Your task to perform on an android device: open wifi settings Image 0: 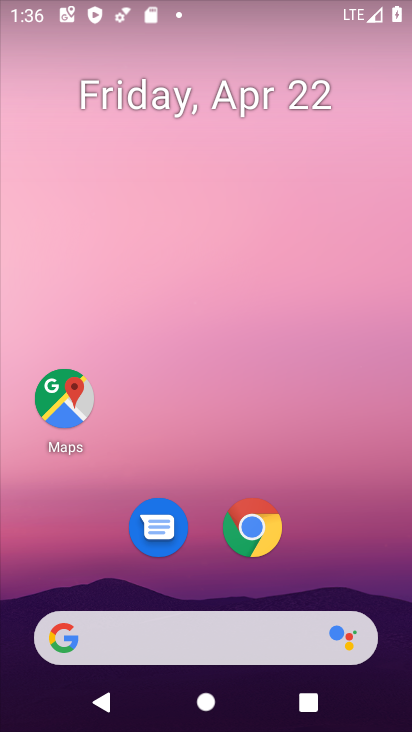
Step 0: drag from (318, 521) to (320, 78)
Your task to perform on an android device: open wifi settings Image 1: 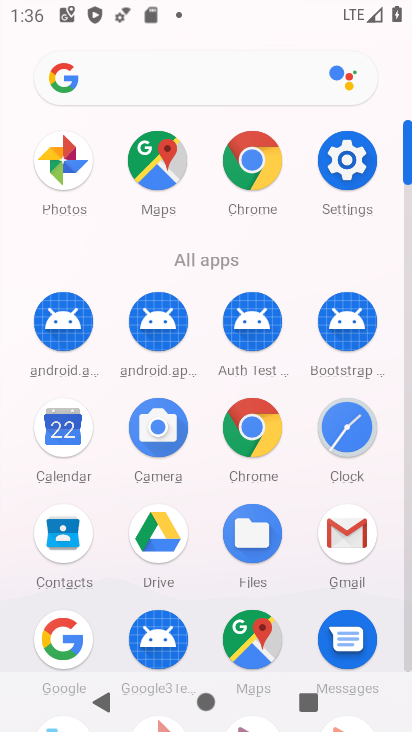
Step 1: click (345, 161)
Your task to perform on an android device: open wifi settings Image 2: 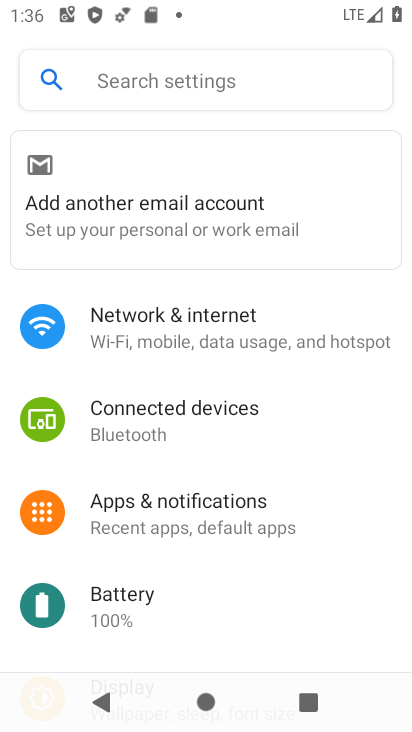
Step 2: click (218, 335)
Your task to perform on an android device: open wifi settings Image 3: 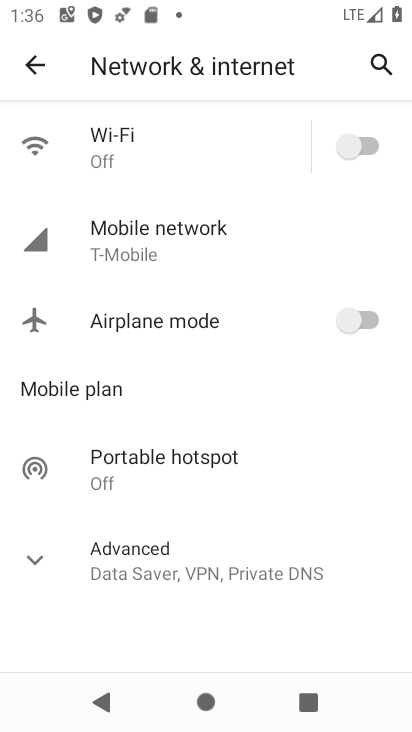
Step 3: click (109, 160)
Your task to perform on an android device: open wifi settings Image 4: 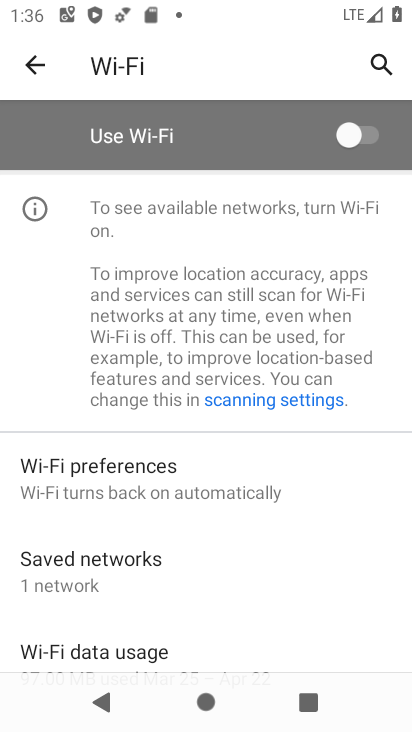
Step 4: task complete